Your task to perform on an android device: visit the assistant section in the google photos Image 0: 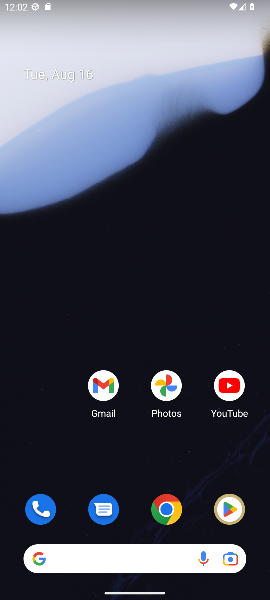
Step 0: press home button
Your task to perform on an android device: visit the assistant section in the google photos Image 1: 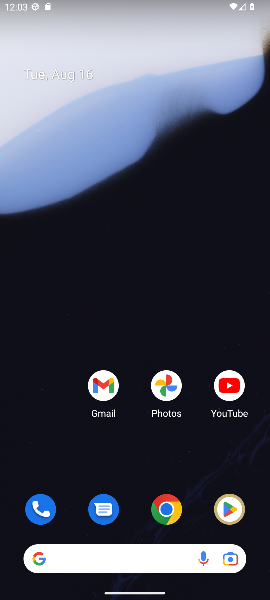
Step 1: click (168, 382)
Your task to perform on an android device: visit the assistant section in the google photos Image 2: 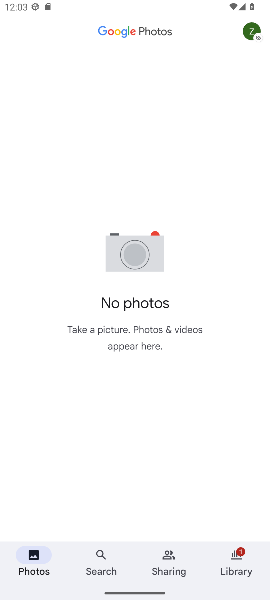
Step 2: task complete